Your task to perform on an android device: Go to Wikipedia Image 0: 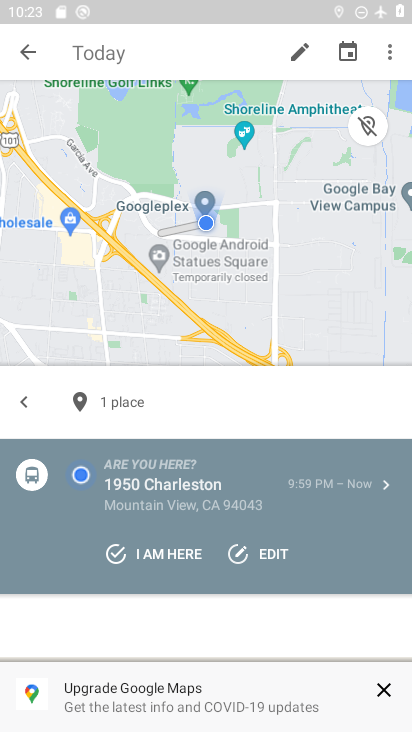
Step 0: press home button
Your task to perform on an android device: Go to Wikipedia Image 1: 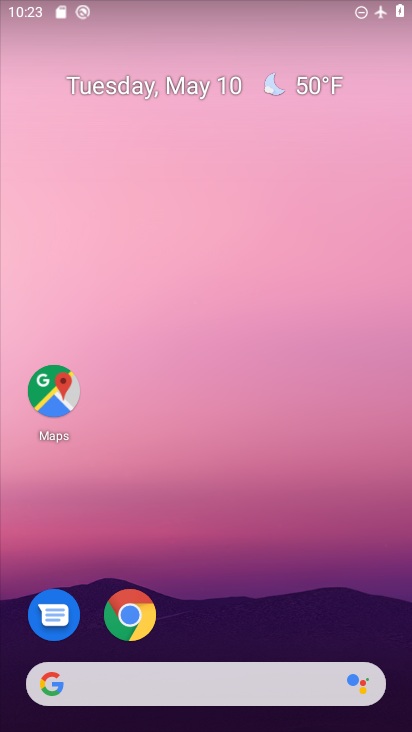
Step 1: click (129, 612)
Your task to perform on an android device: Go to Wikipedia Image 2: 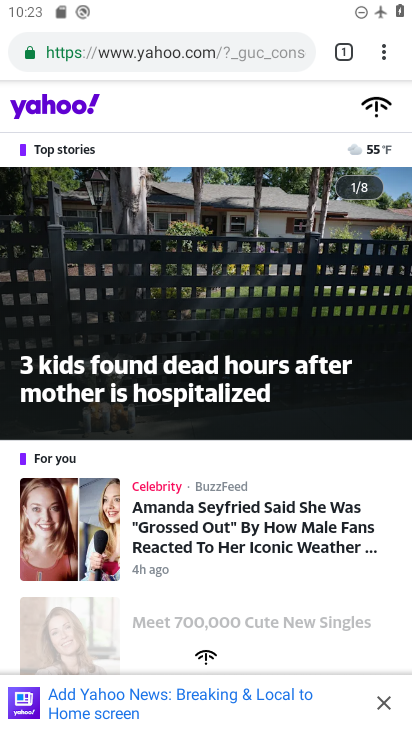
Step 2: click (185, 52)
Your task to perform on an android device: Go to Wikipedia Image 3: 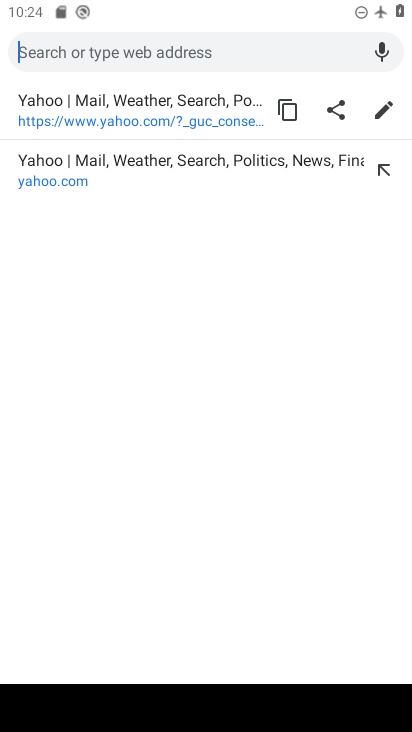
Step 3: type "wikipedia"
Your task to perform on an android device: Go to Wikipedia Image 4: 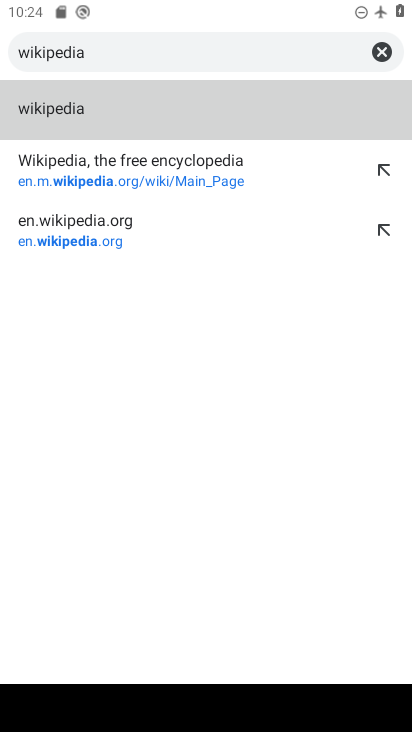
Step 4: click (46, 110)
Your task to perform on an android device: Go to Wikipedia Image 5: 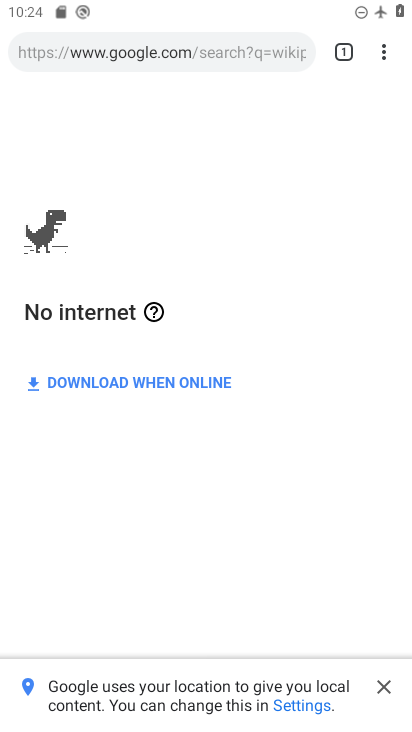
Step 5: task complete